Your task to perform on an android device: change timer sound Image 0: 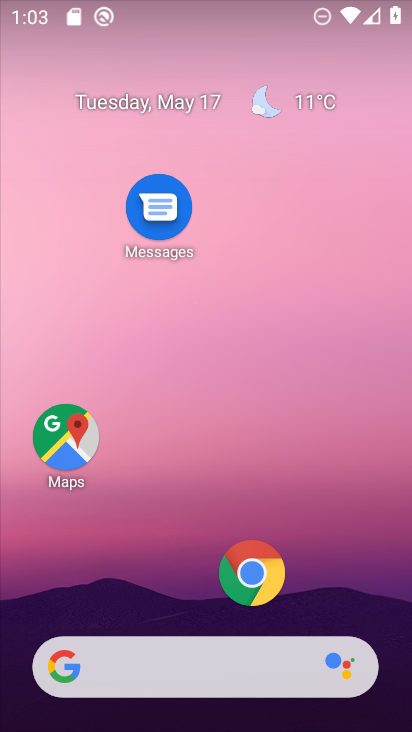
Step 0: drag from (204, 618) to (189, 115)
Your task to perform on an android device: change timer sound Image 1: 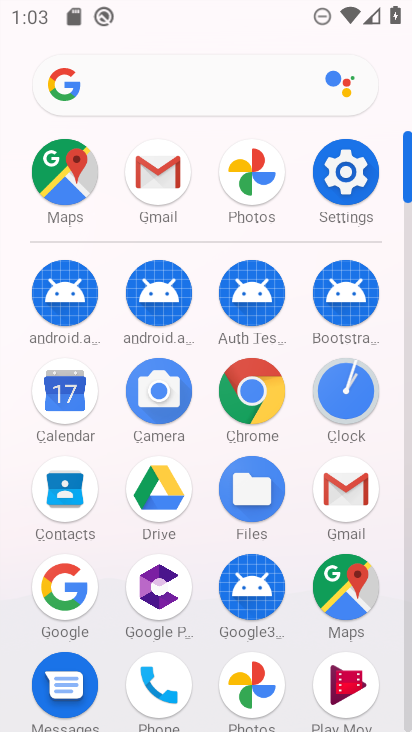
Step 1: click (341, 387)
Your task to perform on an android device: change timer sound Image 2: 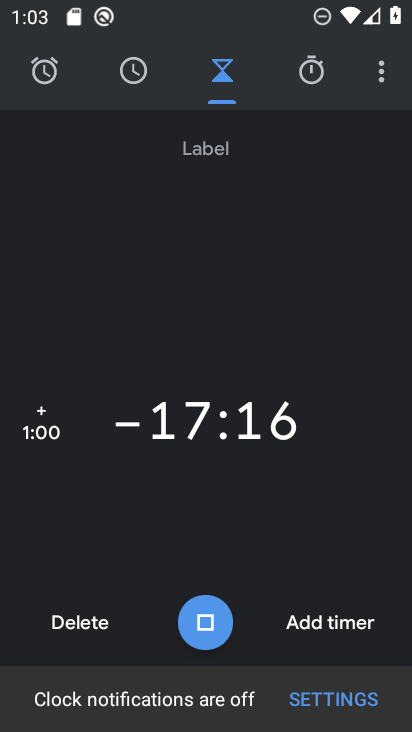
Step 2: click (68, 624)
Your task to perform on an android device: change timer sound Image 3: 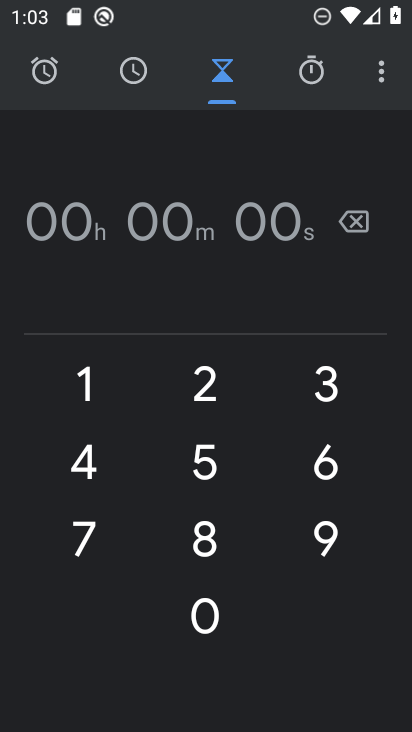
Step 3: click (371, 83)
Your task to perform on an android device: change timer sound Image 4: 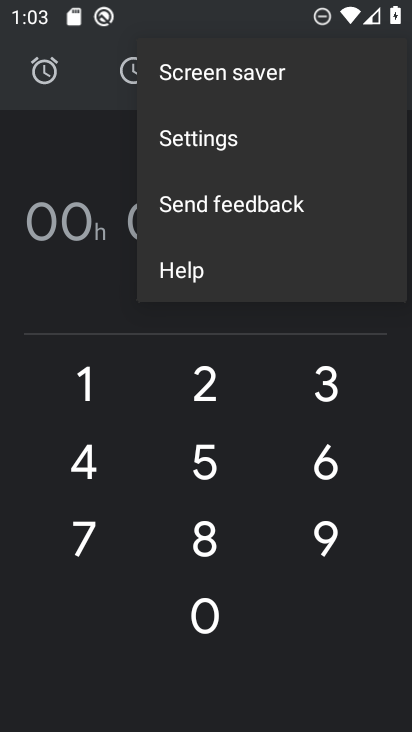
Step 4: click (256, 141)
Your task to perform on an android device: change timer sound Image 5: 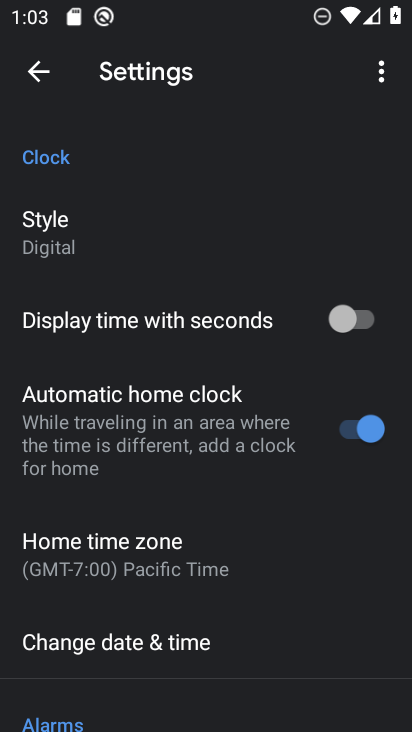
Step 5: drag from (223, 693) to (230, 200)
Your task to perform on an android device: change timer sound Image 6: 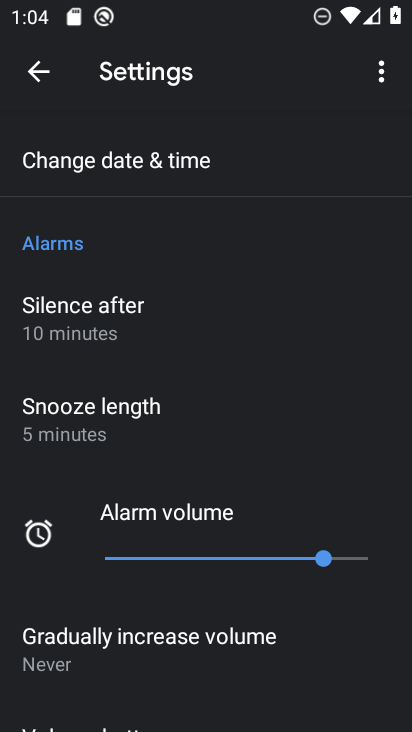
Step 6: drag from (180, 675) to (181, 166)
Your task to perform on an android device: change timer sound Image 7: 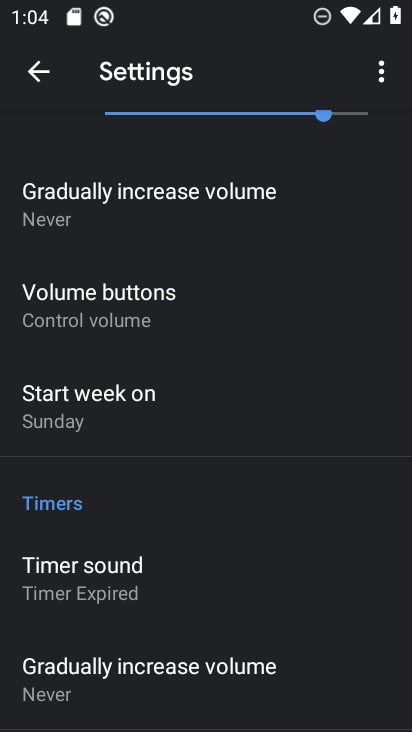
Step 7: click (164, 579)
Your task to perform on an android device: change timer sound Image 8: 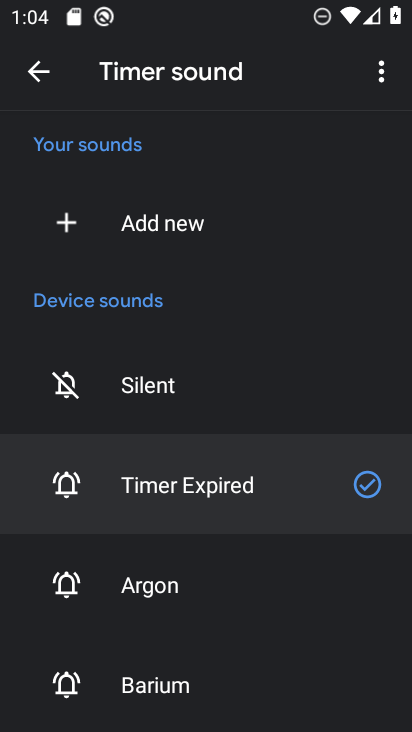
Step 8: click (208, 689)
Your task to perform on an android device: change timer sound Image 9: 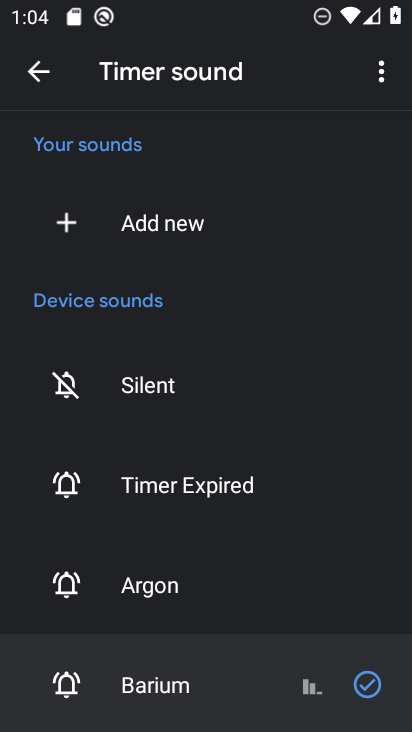
Step 9: task complete